Your task to perform on an android device: see sites visited before in the chrome app Image 0: 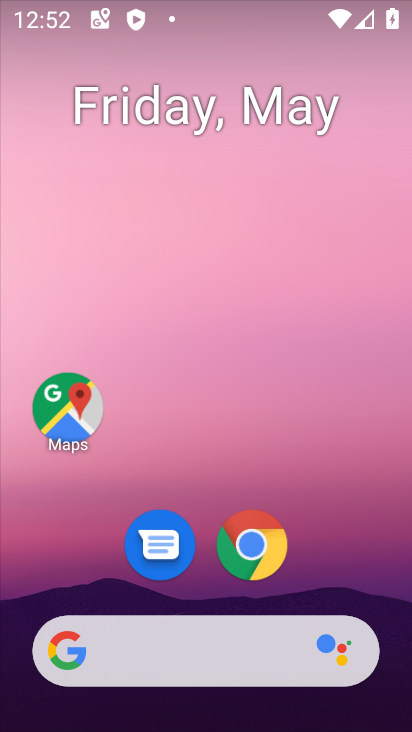
Step 0: click (248, 549)
Your task to perform on an android device: see sites visited before in the chrome app Image 1: 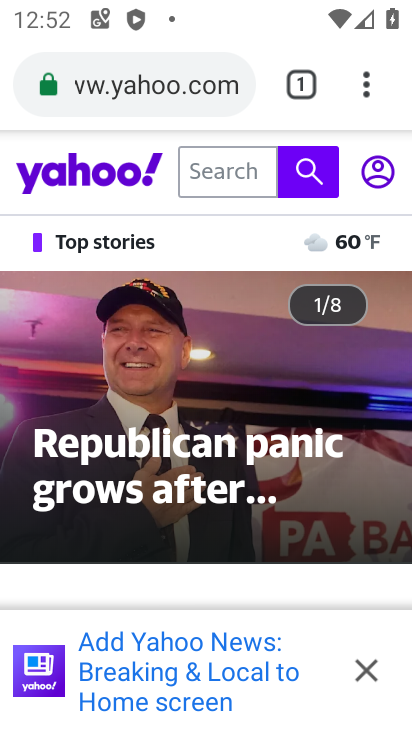
Step 1: click (362, 82)
Your task to perform on an android device: see sites visited before in the chrome app Image 2: 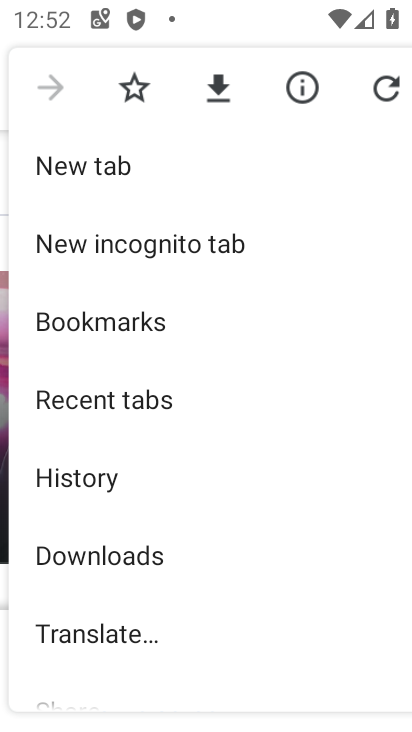
Step 2: drag from (263, 492) to (212, 153)
Your task to perform on an android device: see sites visited before in the chrome app Image 3: 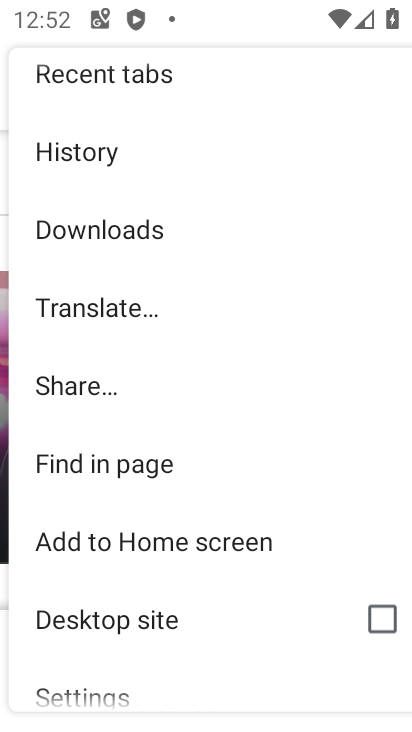
Step 3: drag from (284, 453) to (236, 100)
Your task to perform on an android device: see sites visited before in the chrome app Image 4: 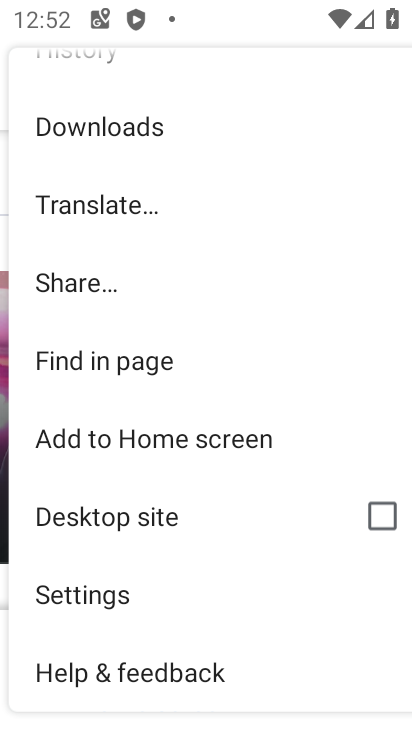
Step 4: click (151, 578)
Your task to perform on an android device: see sites visited before in the chrome app Image 5: 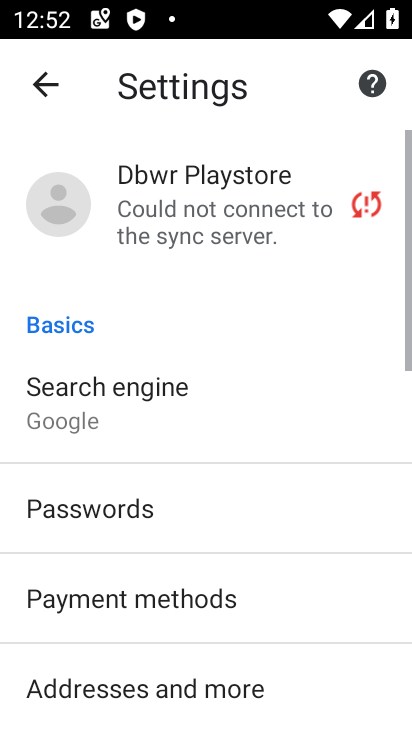
Step 5: drag from (184, 565) to (161, 265)
Your task to perform on an android device: see sites visited before in the chrome app Image 6: 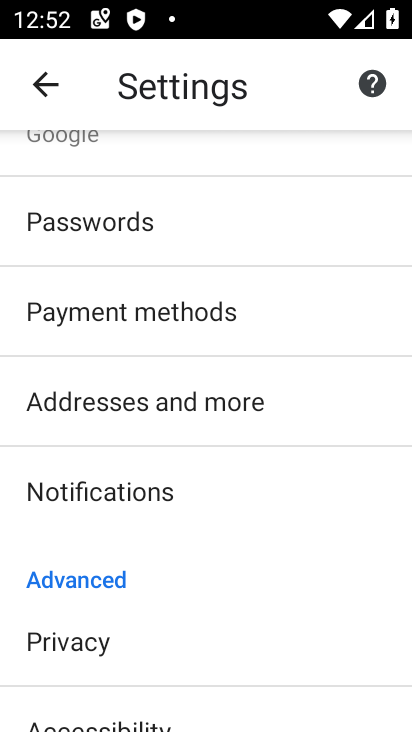
Step 6: drag from (182, 592) to (151, 265)
Your task to perform on an android device: see sites visited before in the chrome app Image 7: 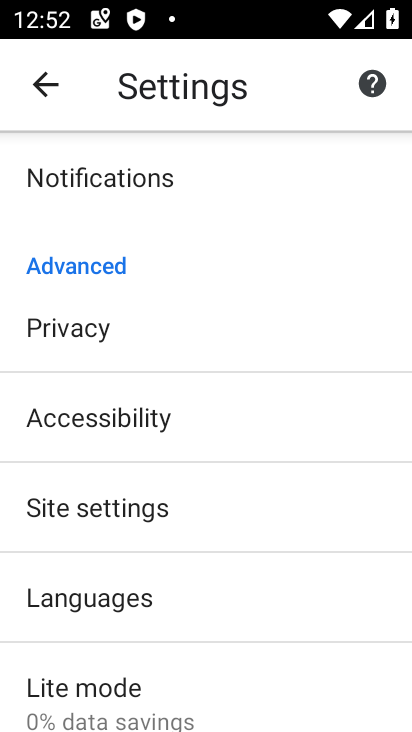
Step 7: click (213, 513)
Your task to perform on an android device: see sites visited before in the chrome app Image 8: 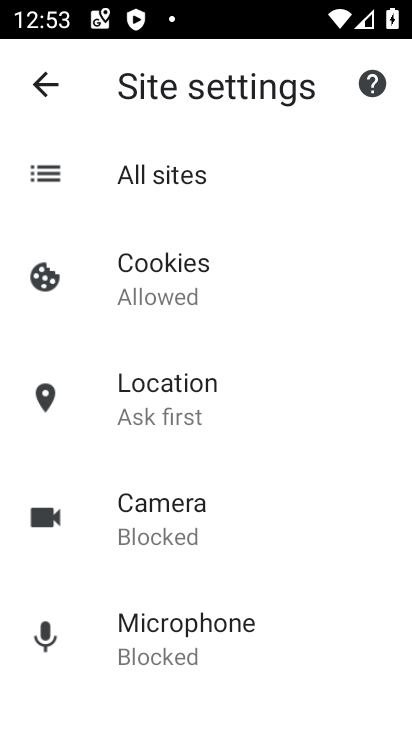
Step 8: drag from (240, 547) to (241, 174)
Your task to perform on an android device: see sites visited before in the chrome app Image 9: 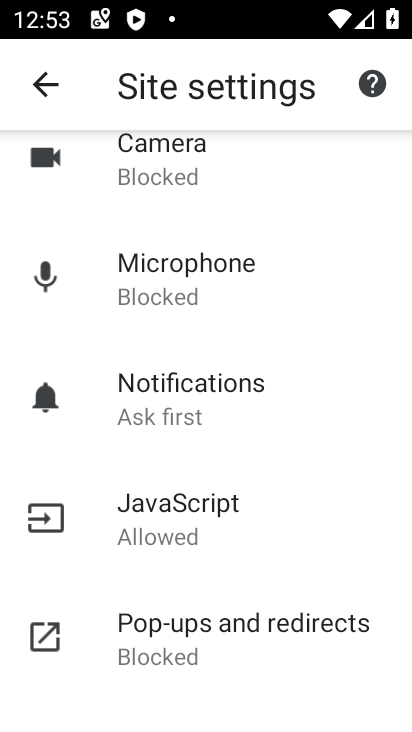
Step 9: drag from (203, 575) to (170, 182)
Your task to perform on an android device: see sites visited before in the chrome app Image 10: 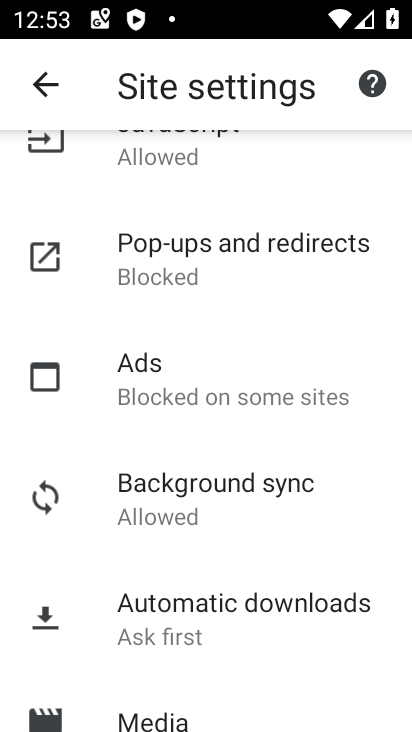
Step 10: drag from (189, 652) to (211, 269)
Your task to perform on an android device: see sites visited before in the chrome app Image 11: 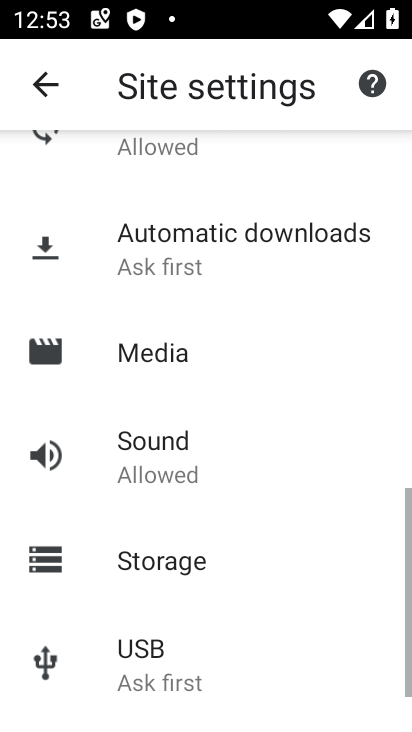
Step 11: drag from (259, 604) to (266, 287)
Your task to perform on an android device: see sites visited before in the chrome app Image 12: 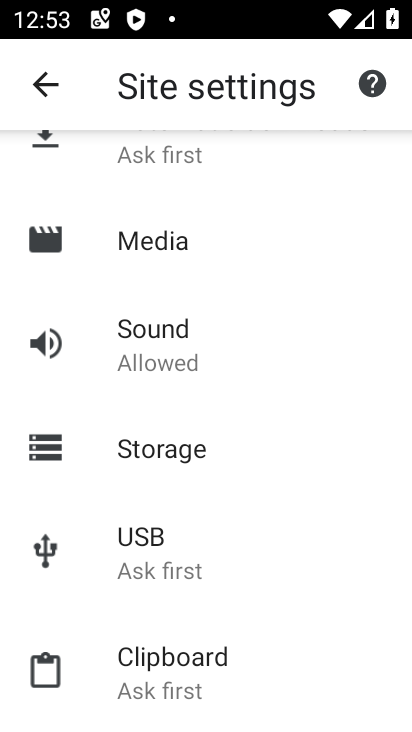
Step 12: drag from (272, 700) to (259, 373)
Your task to perform on an android device: see sites visited before in the chrome app Image 13: 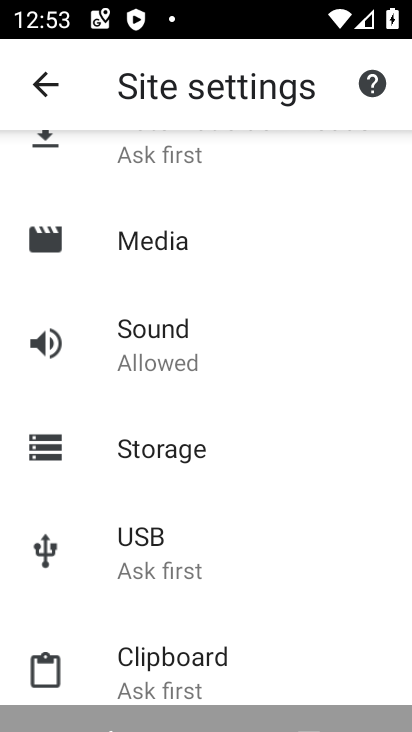
Step 13: drag from (285, 298) to (274, 605)
Your task to perform on an android device: see sites visited before in the chrome app Image 14: 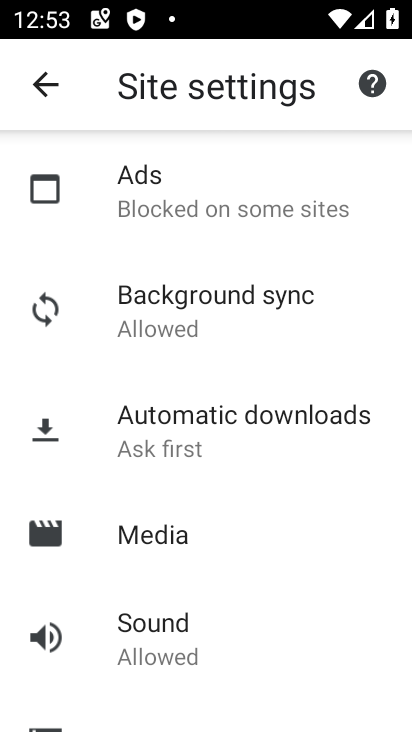
Step 14: drag from (266, 331) to (261, 607)
Your task to perform on an android device: see sites visited before in the chrome app Image 15: 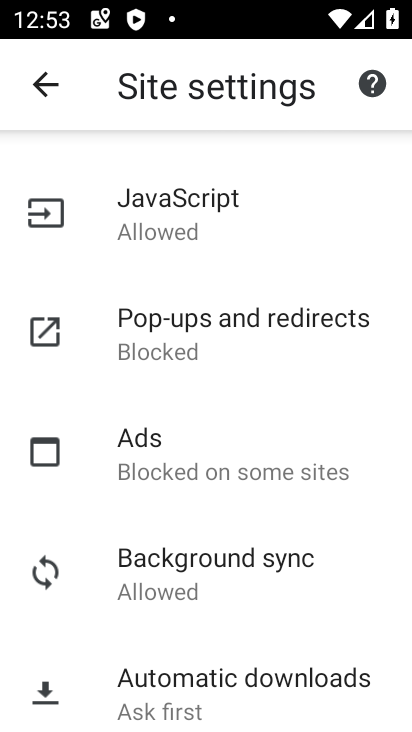
Step 15: drag from (223, 313) to (232, 603)
Your task to perform on an android device: see sites visited before in the chrome app Image 16: 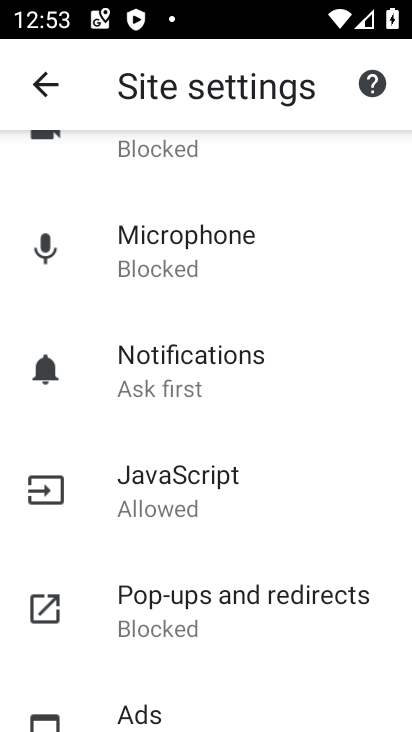
Step 16: drag from (233, 271) to (218, 646)
Your task to perform on an android device: see sites visited before in the chrome app Image 17: 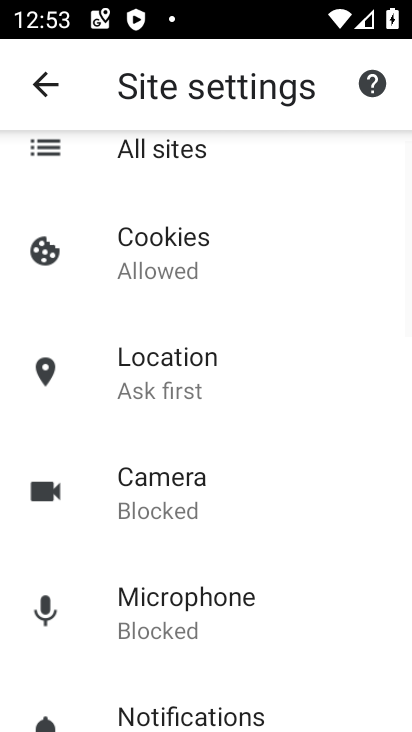
Step 17: drag from (234, 362) to (235, 674)
Your task to perform on an android device: see sites visited before in the chrome app Image 18: 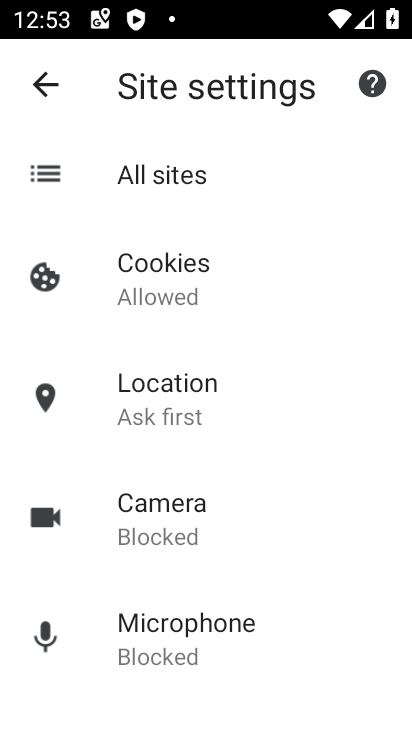
Step 18: click (239, 185)
Your task to perform on an android device: see sites visited before in the chrome app Image 19: 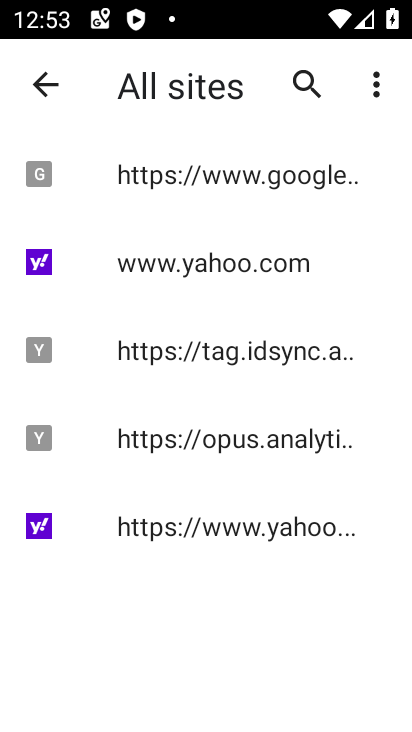
Step 19: task complete